Your task to perform on an android device: turn on javascript in the chrome app Image 0: 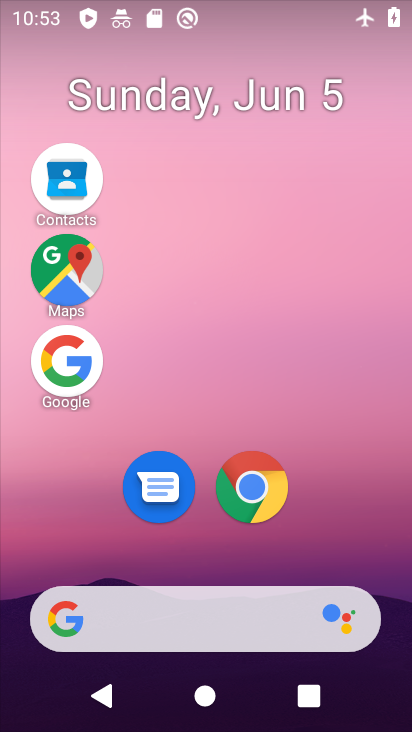
Step 0: drag from (269, 606) to (358, 213)
Your task to perform on an android device: turn on javascript in the chrome app Image 1: 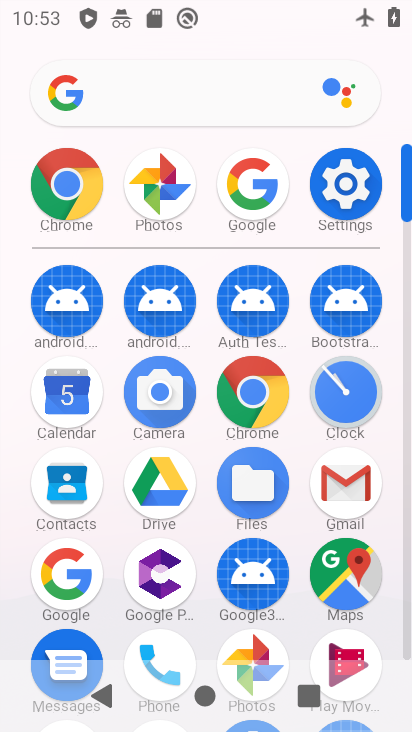
Step 1: click (265, 399)
Your task to perform on an android device: turn on javascript in the chrome app Image 2: 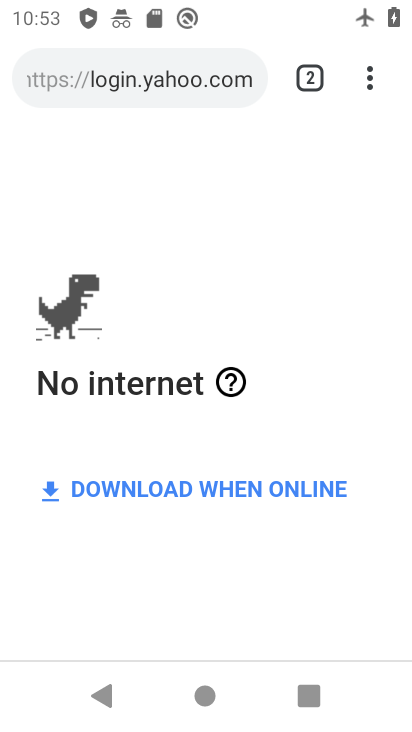
Step 2: click (379, 85)
Your task to perform on an android device: turn on javascript in the chrome app Image 3: 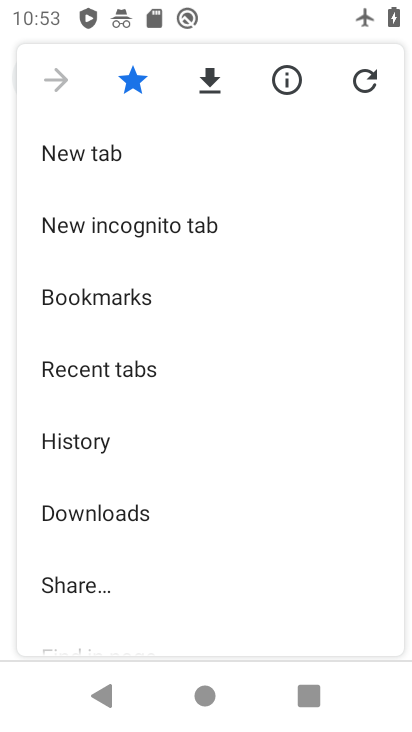
Step 3: drag from (169, 567) to (168, 160)
Your task to perform on an android device: turn on javascript in the chrome app Image 4: 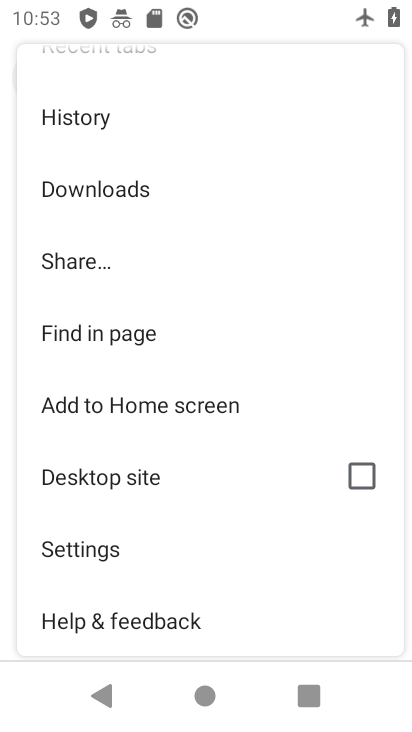
Step 4: click (108, 556)
Your task to perform on an android device: turn on javascript in the chrome app Image 5: 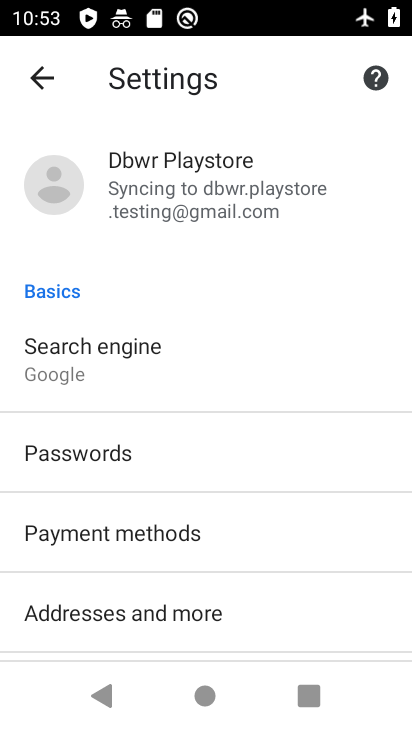
Step 5: drag from (218, 603) to (293, 161)
Your task to perform on an android device: turn on javascript in the chrome app Image 6: 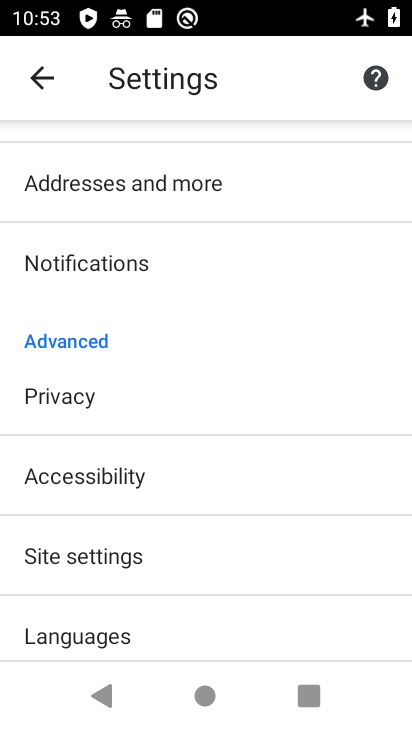
Step 6: click (147, 567)
Your task to perform on an android device: turn on javascript in the chrome app Image 7: 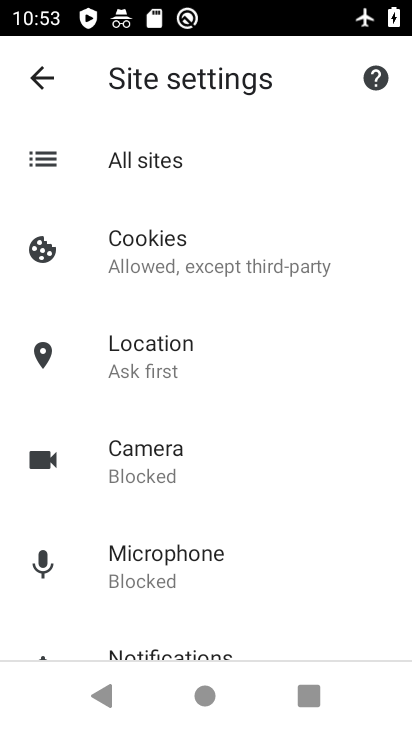
Step 7: drag from (135, 567) to (158, 256)
Your task to perform on an android device: turn on javascript in the chrome app Image 8: 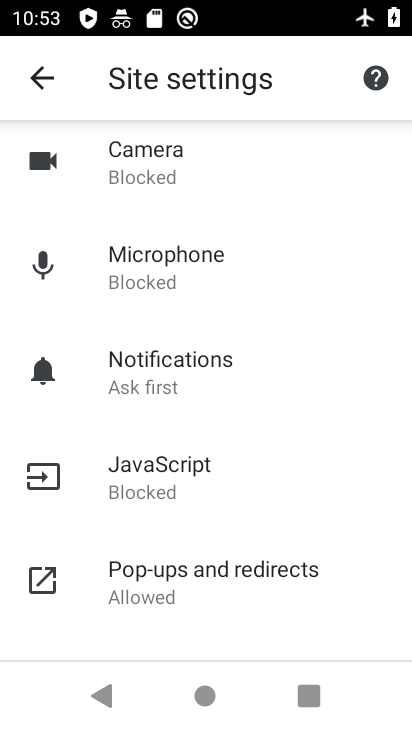
Step 8: click (155, 496)
Your task to perform on an android device: turn on javascript in the chrome app Image 9: 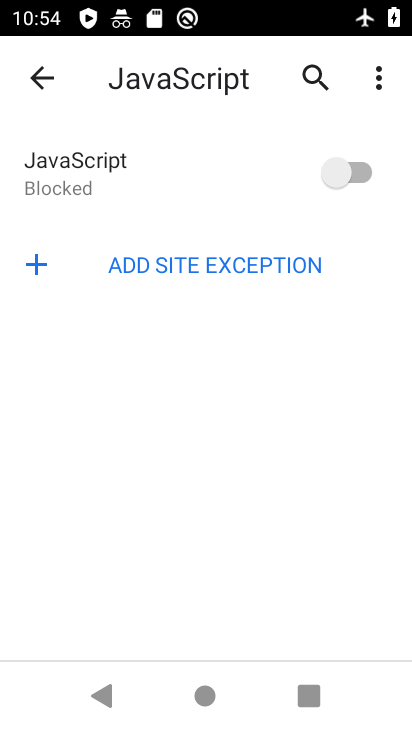
Step 9: click (292, 157)
Your task to perform on an android device: turn on javascript in the chrome app Image 10: 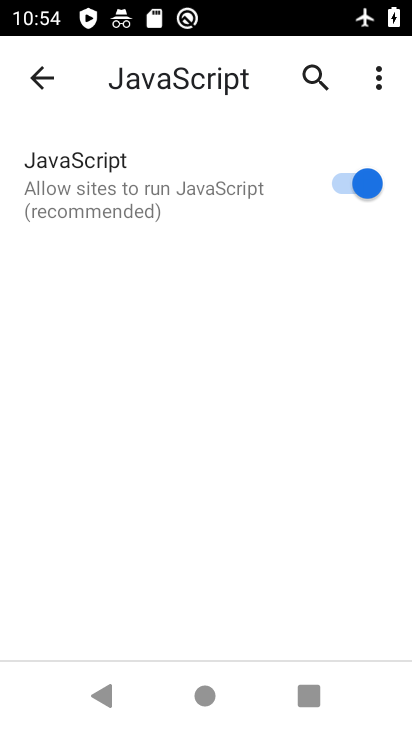
Step 10: task complete